Your task to perform on an android device: Go to privacy settings Image 0: 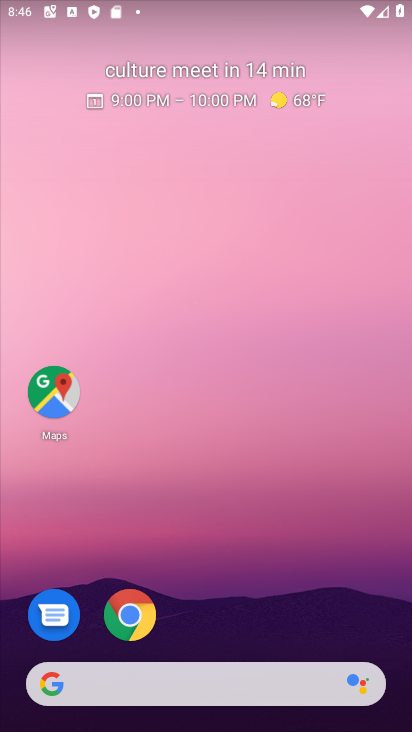
Step 0: click (139, 600)
Your task to perform on an android device: Go to privacy settings Image 1: 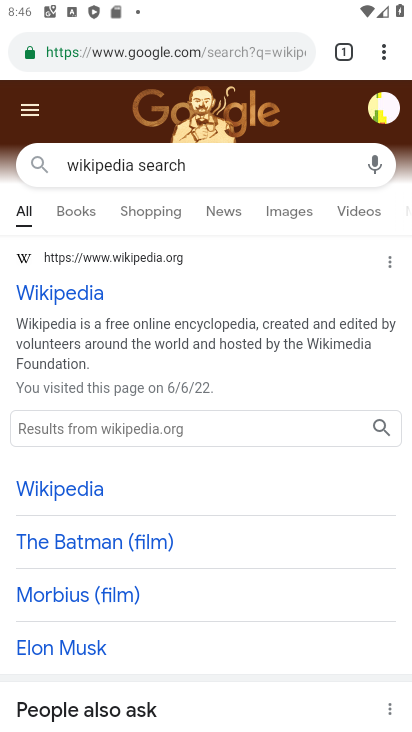
Step 1: click (386, 52)
Your task to perform on an android device: Go to privacy settings Image 2: 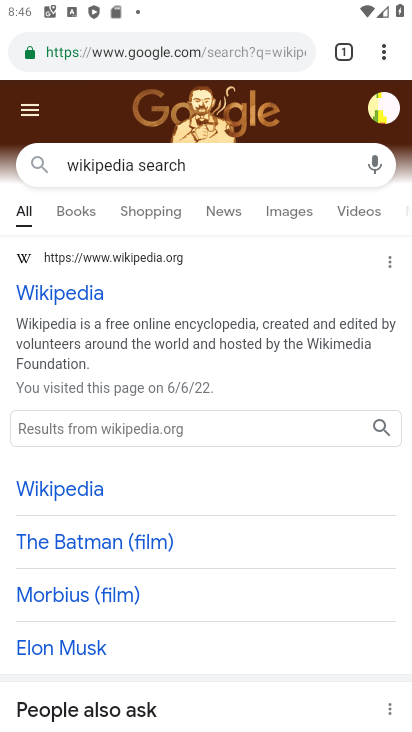
Step 2: click (380, 47)
Your task to perform on an android device: Go to privacy settings Image 3: 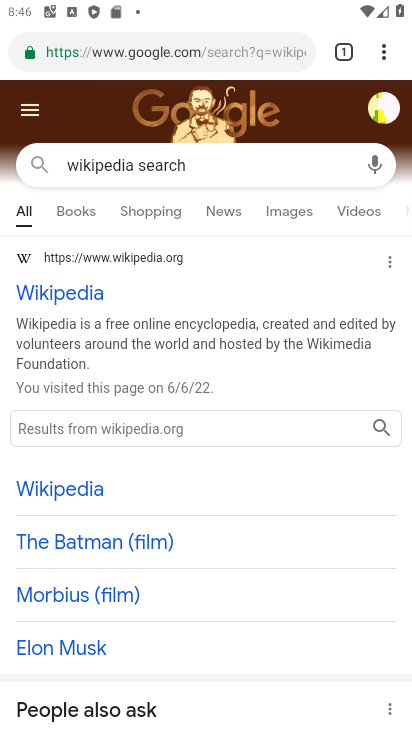
Step 3: click (387, 58)
Your task to perform on an android device: Go to privacy settings Image 4: 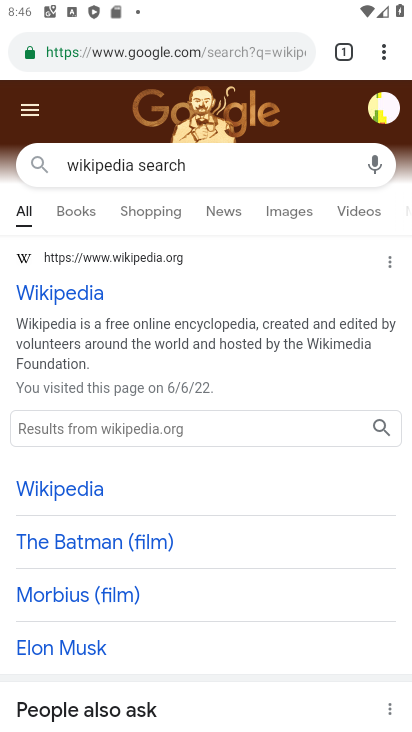
Step 4: click (379, 42)
Your task to perform on an android device: Go to privacy settings Image 5: 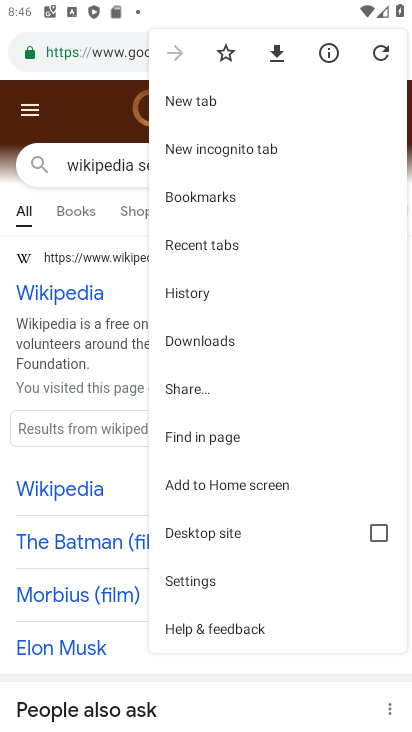
Step 5: click (172, 584)
Your task to perform on an android device: Go to privacy settings Image 6: 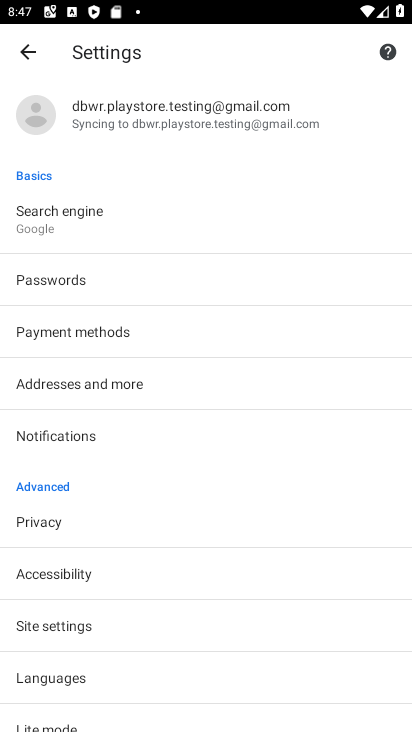
Step 6: click (48, 517)
Your task to perform on an android device: Go to privacy settings Image 7: 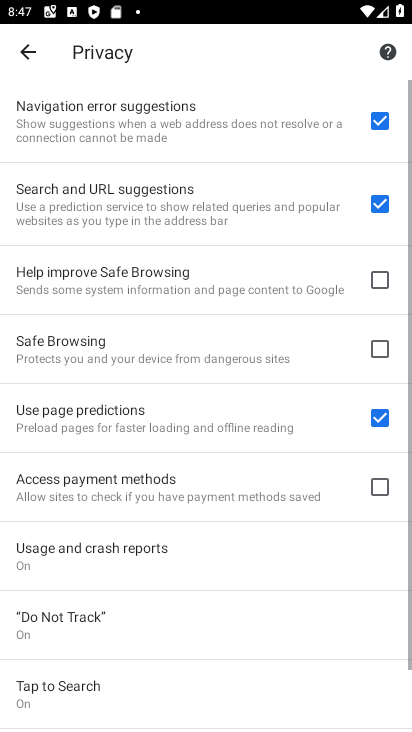
Step 7: task complete